Your task to perform on an android device: open app "ColorNote Notepad Notes" Image 0: 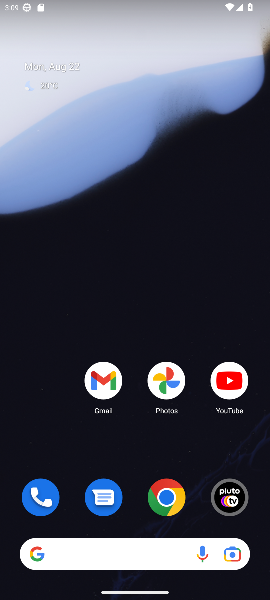
Step 0: press home button
Your task to perform on an android device: open app "ColorNote Notepad Notes" Image 1: 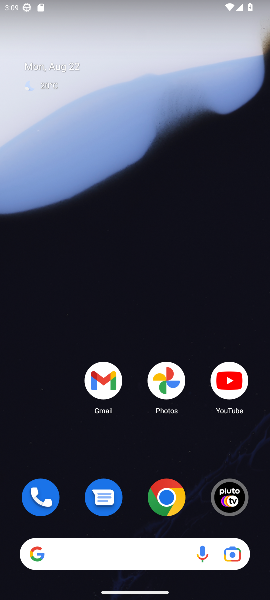
Step 1: drag from (50, 451) to (54, 128)
Your task to perform on an android device: open app "ColorNote Notepad Notes" Image 2: 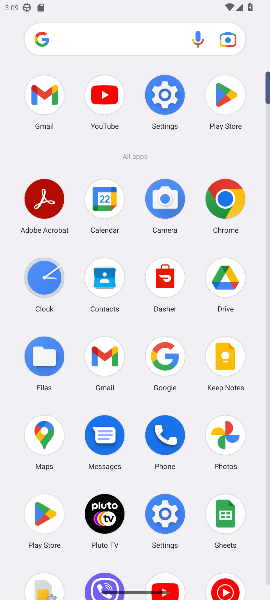
Step 2: click (226, 99)
Your task to perform on an android device: open app "ColorNote Notepad Notes" Image 3: 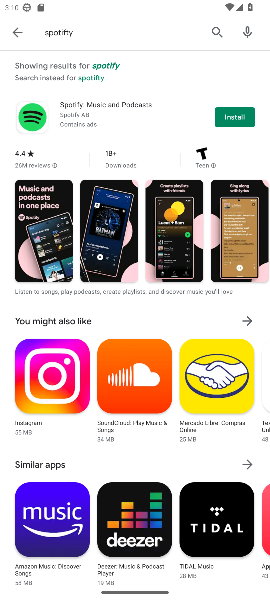
Step 3: press back button
Your task to perform on an android device: open app "ColorNote Notepad Notes" Image 4: 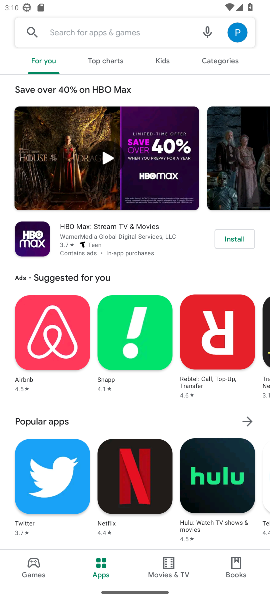
Step 4: click (141, 30)
Your task to perform on an android device: open app "ColorNote Notepad Notes" Image 5: 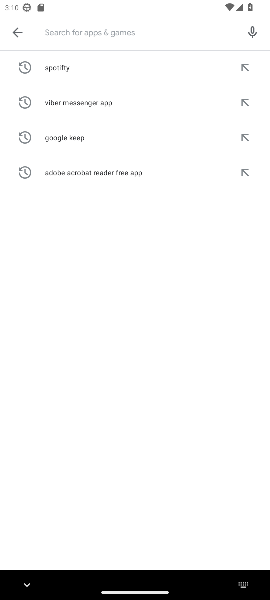
Step 5: type "colornote notepad notes"
Your task to perform on an android device: open app "ColorNote Notepad Notes" Image 6: 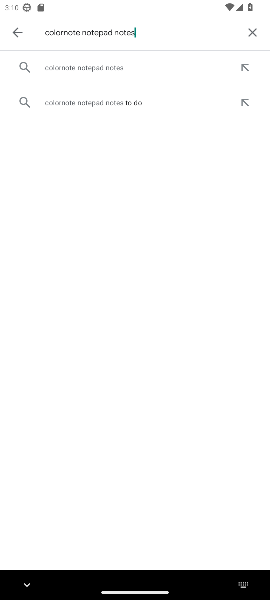
Step 6: click (108, 70)
Your task to perform on an android device: open app "ColorNote Notepad Notes" Image 7: 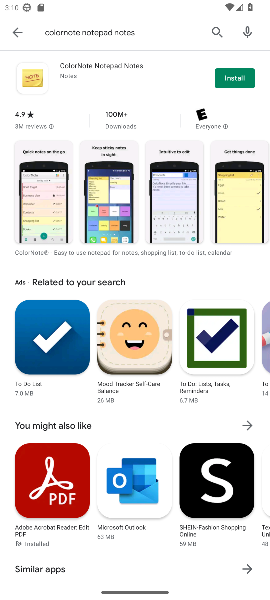
Step 7: task complete